Your task to perform on an android device: Open the calendar and show me this week's events Image 0: 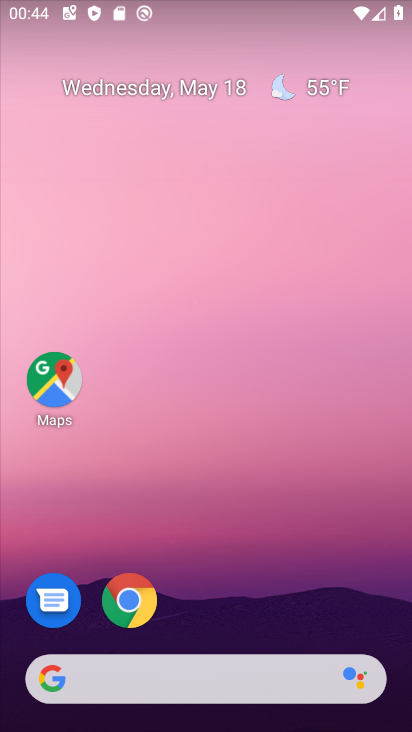
Step 0: drag from (218, 675) to (220, 291)
Your task to perform on an android device: Open the calendar and show me this week's events Image 1: 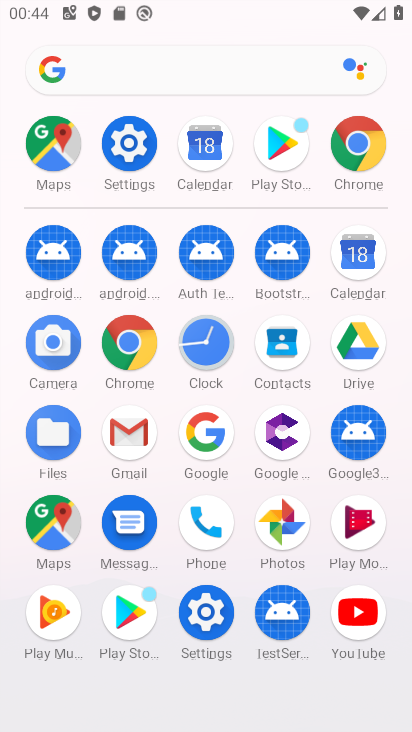
Step 1: click (375, 262)
Your task to perform on an android device: Open the calendar and show me this week's events Image 2: 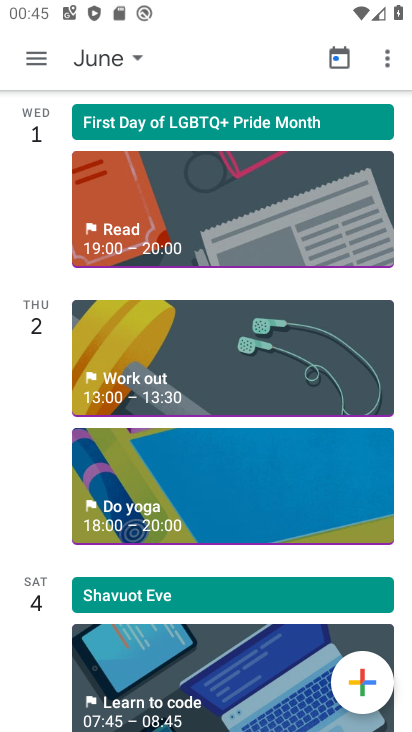
Step 2: click (27, 68)
Your task to perform on an android device: Open the calendar and show me this week's events Image 3: 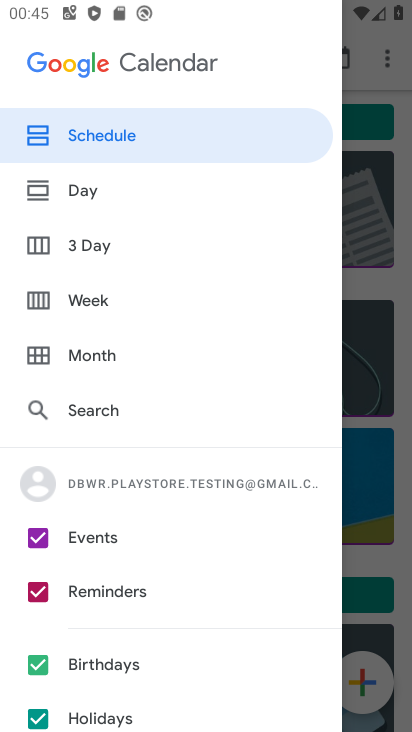
Step 3: click (111, 305)
Your task to perform on an android device: Open the calendar and show me this week's events Image 4: 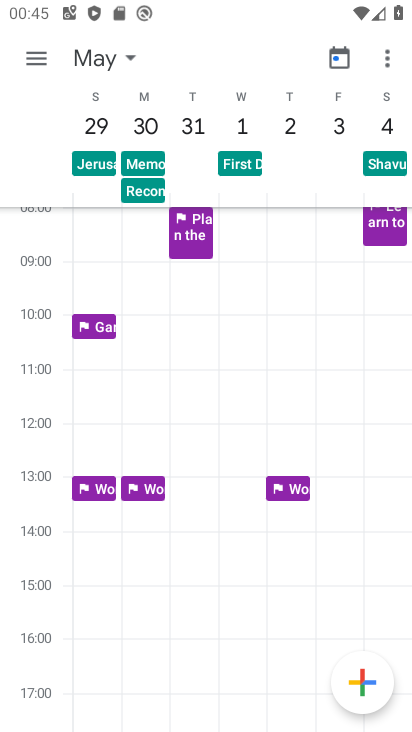
Step 4: task complete